Your task to perform on an android device: Search for nike dri-fit shirts on Nike Image 0: 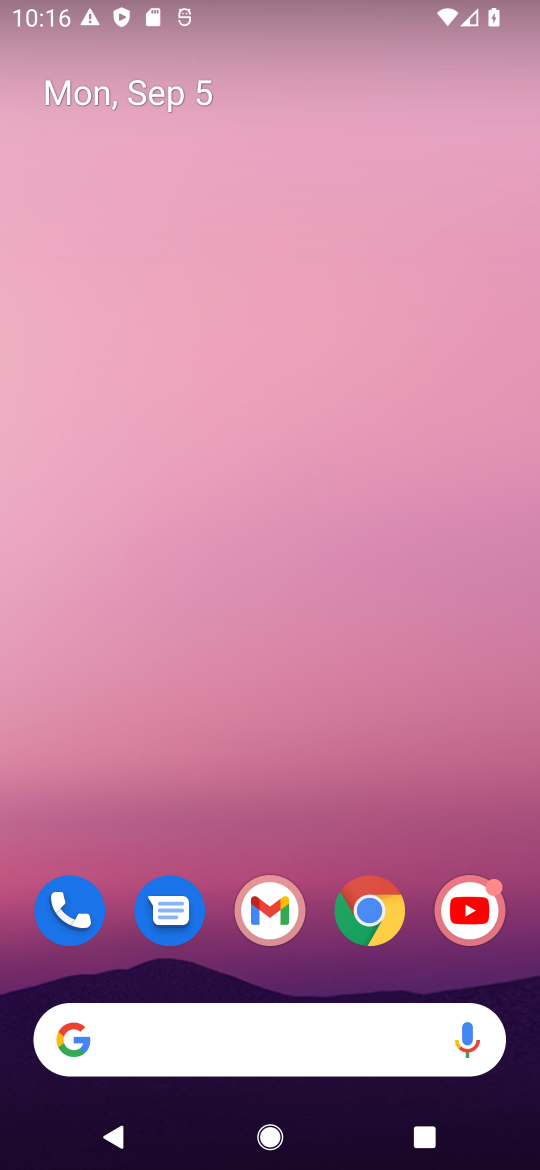
Step 0: click (381, 919)
Your task to perform on an android device: Search for nike dri-fit shirts on Nike Image 1: 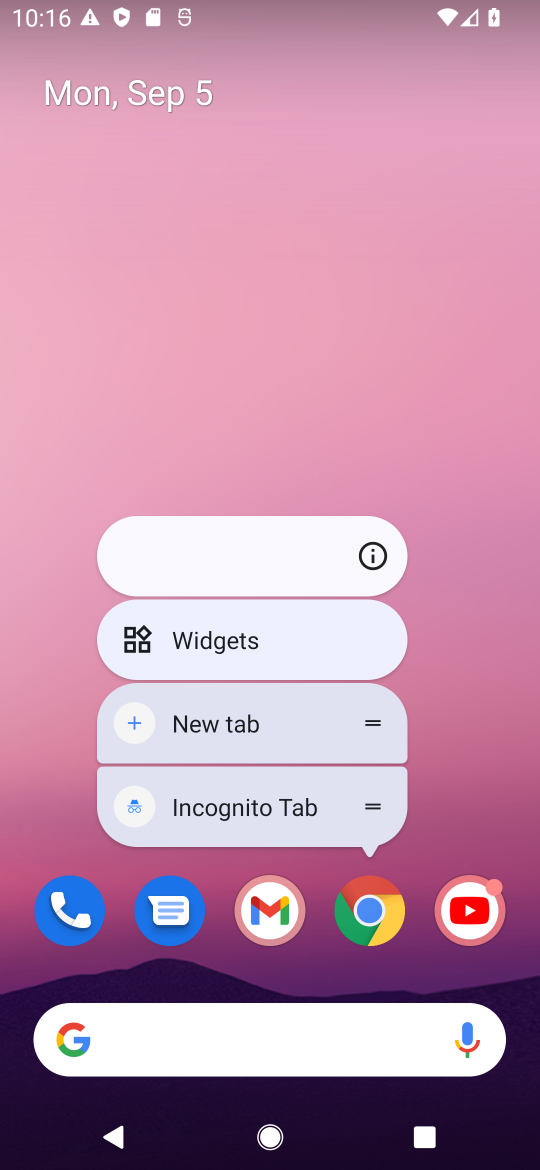
Step 1: click (381, 919)
Your task to perform on an android device: Search for nike dri-fit shirts on Nike Image 2: 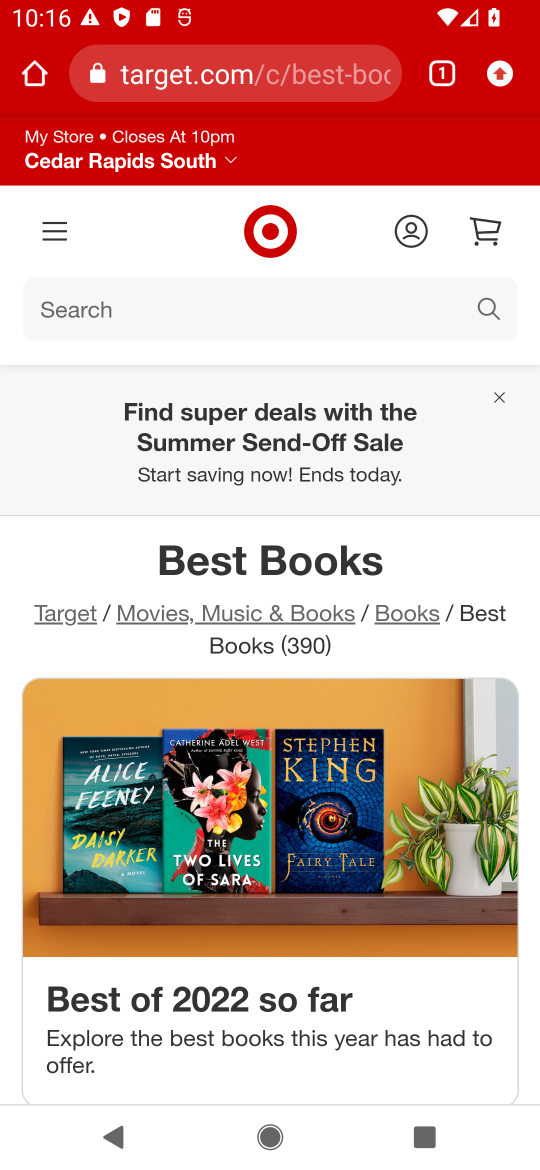
Step 2: click (259, 78)
Your task to perform on an android device: Search for nike dri-fit shirts on Nike Image 3: 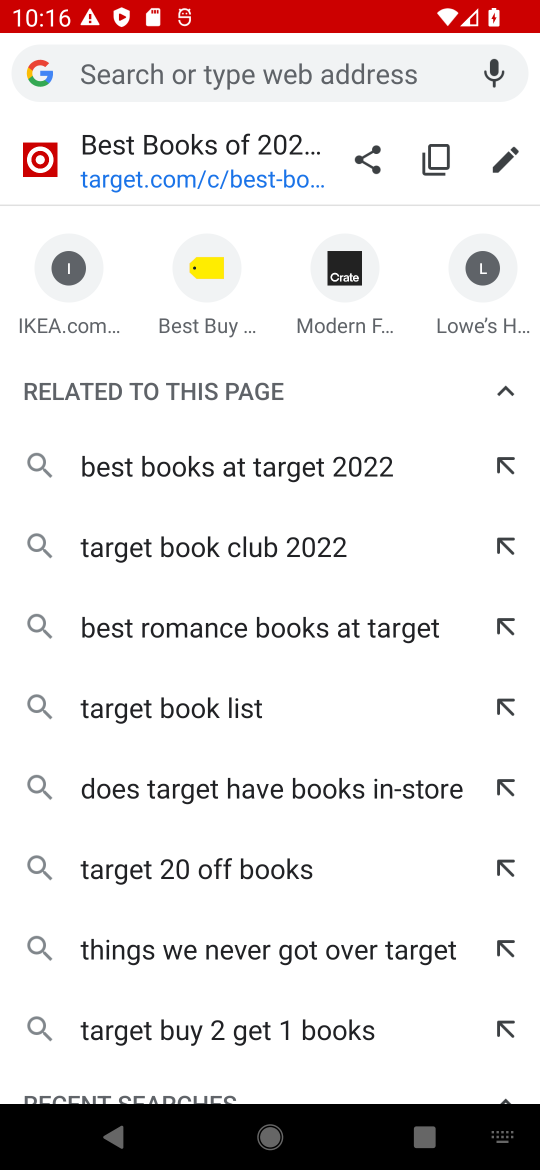
Step 3: type "nike"
Your task to perform on an android device: Search for nike dri-fit shirts on Nike Image 4: 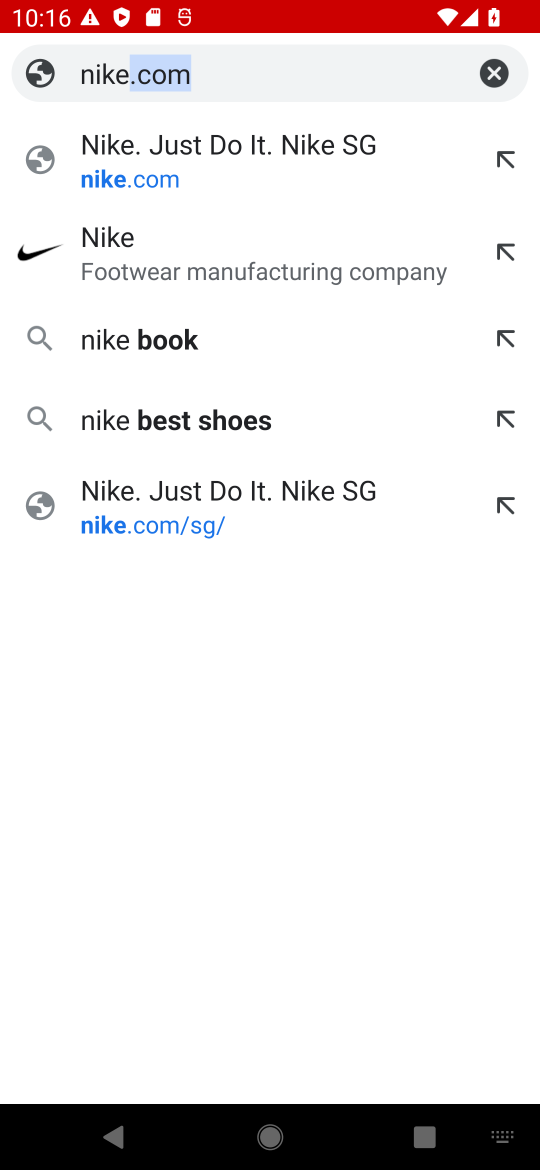
Step 4: click (226, 179)
Your task to perform on an android device: Search for nike dri-fit shirts on Nike Image 5: 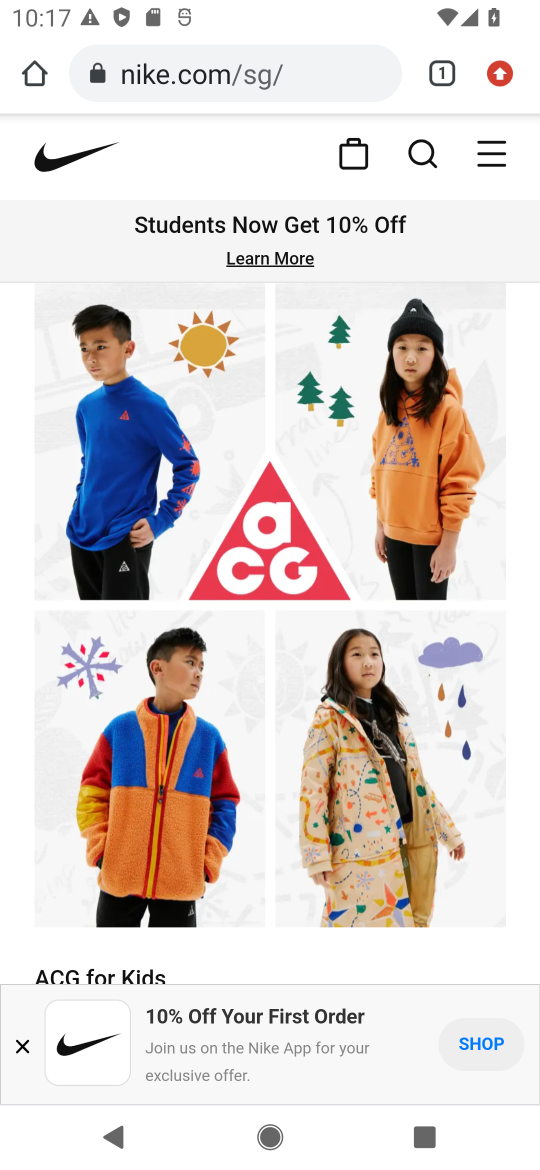
Step 5: click (430, 145)
Your task to perform on an android device: Search for nike dri-fit shirts on Nike Image 6: 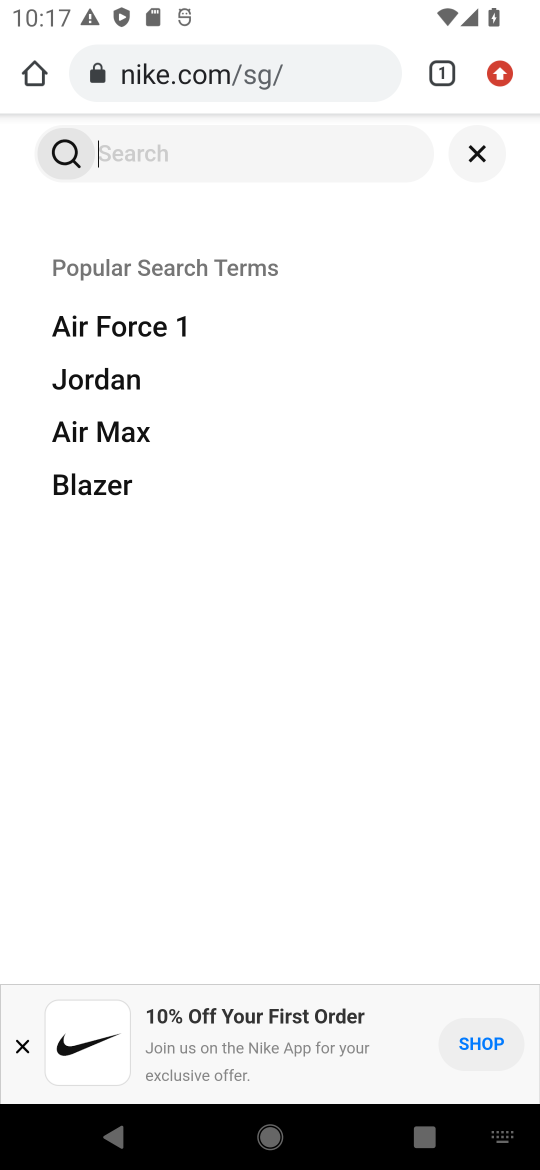
Step 6: click (430, 145)
Your task to perform on an android device: Search for nike dri-fit shirts on Nike Image 7: 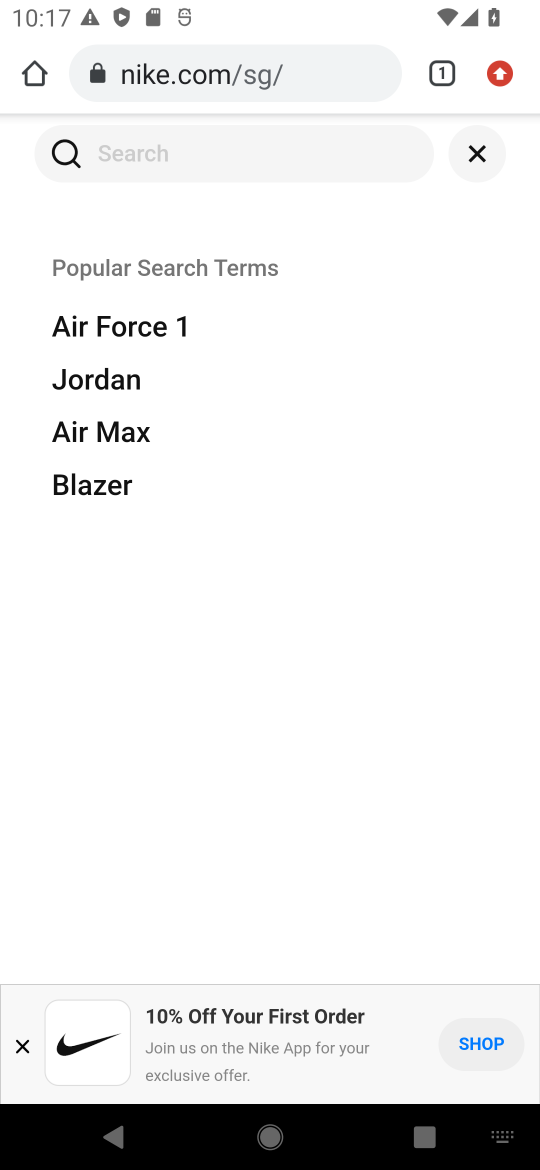
Step 7: click (378, 167)
Your task to perform on an android device: Search for nike dri-fit shirts on Nike Image 8: 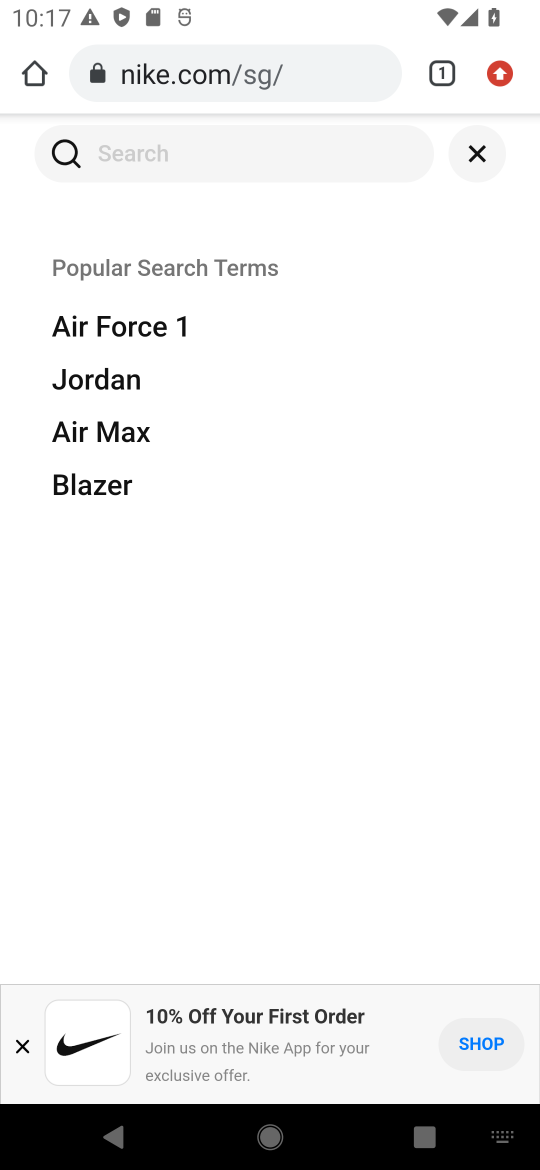
Step 8: type "nke dri-fit shirts"
Your task to perform on an android device: Search for nike dri-fit shirts on Nike Image 9: 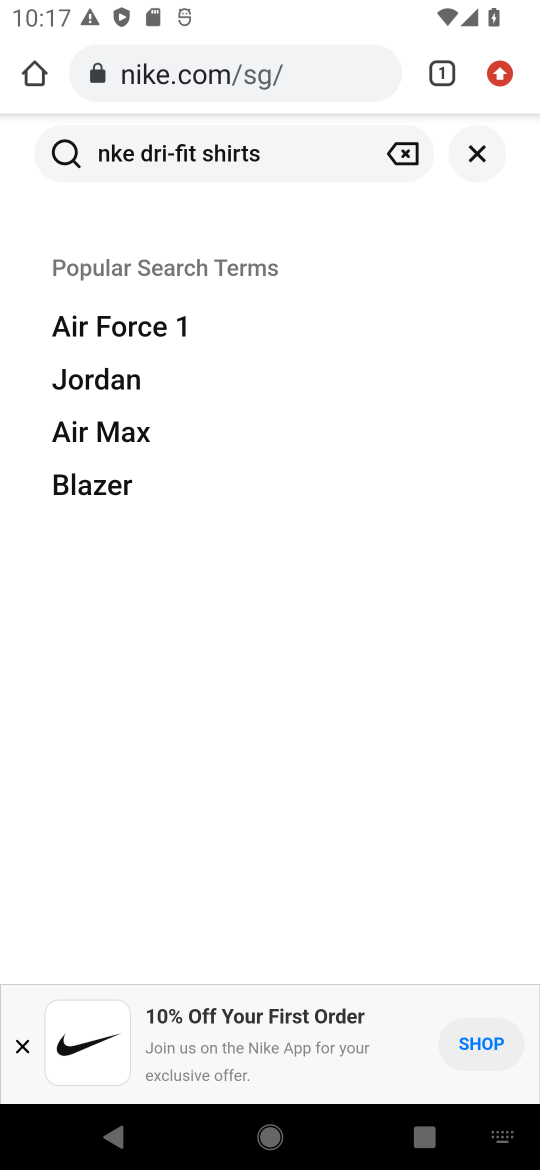
Step 9: press enter
Your task to perform on an android device: Search for nike dri-fit shirts on Nike Image 10: 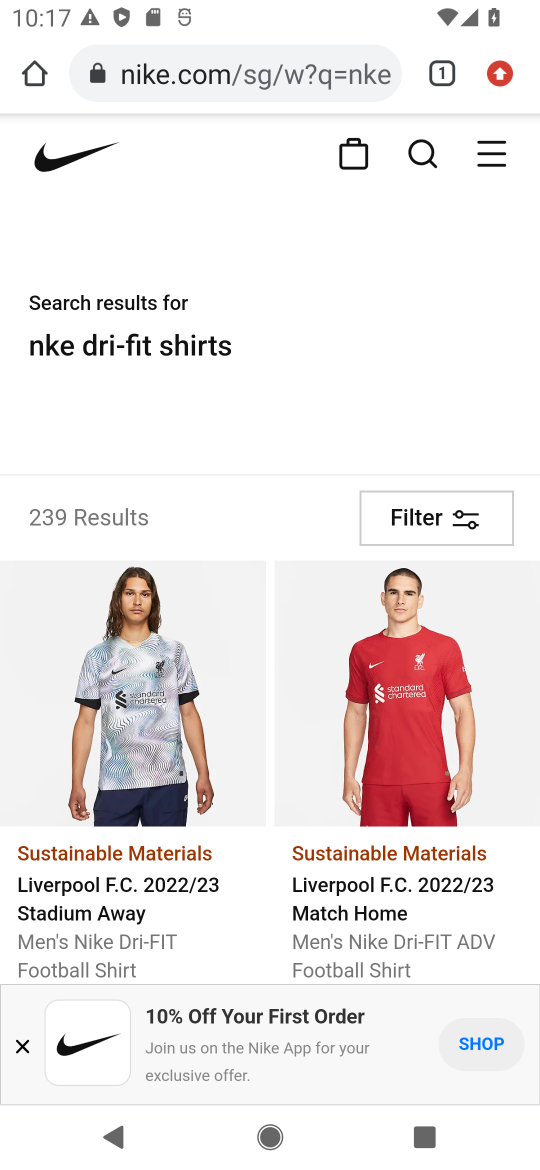
Step 10: task complete